Your task to perform on an android device: turn off wifi Image 0: 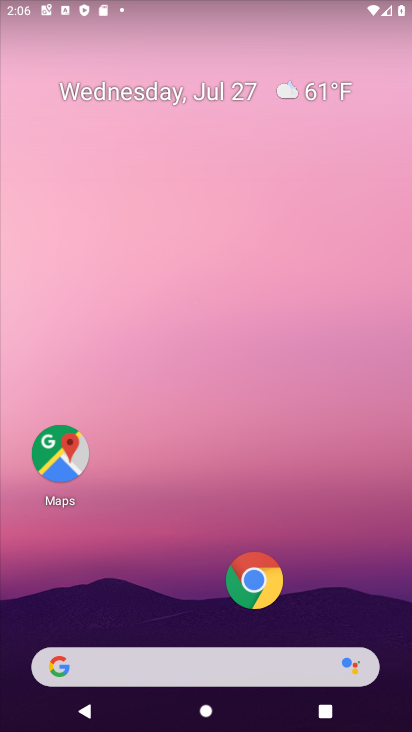
Step 0: drag from (203, 595) to (302, 149)
Your task to perform on an android device: turn off wifi Image 1: 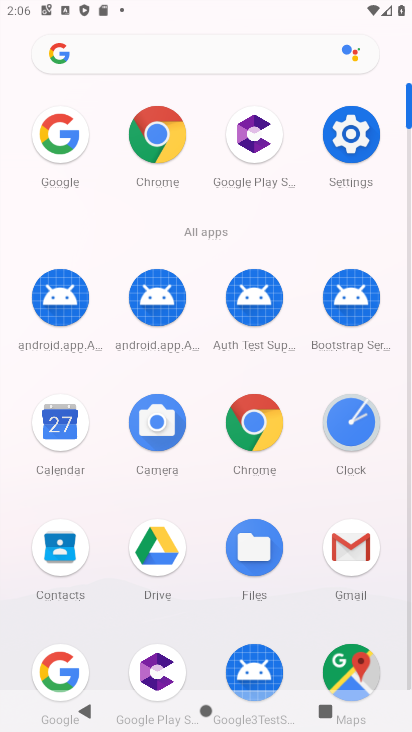
Step 1: click (357, 133)
Your task to perform on an android device: turn off wifi Image 2: 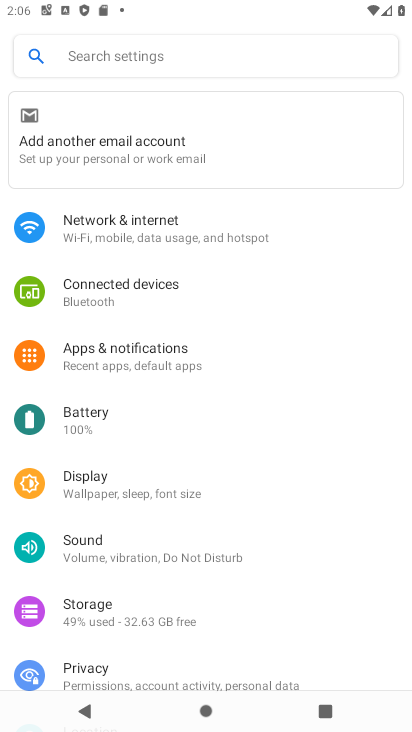
Step 2: click (200, 233)
Your task to perform on an android device: turn off wifi Image 3: 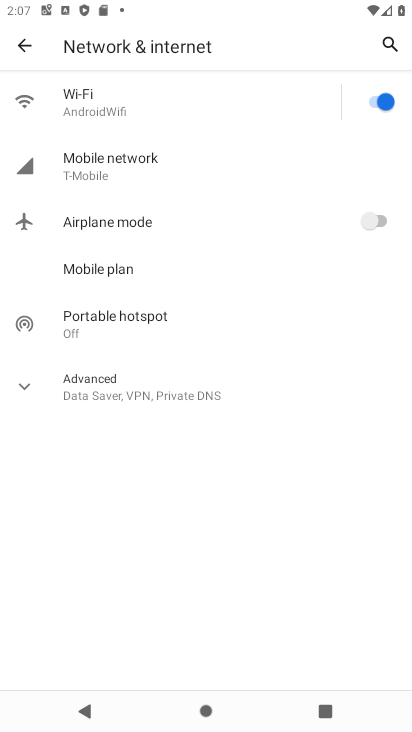
Step 3: click (379, 103)
Your task to perform on an android device: turn off wifi Image 4: 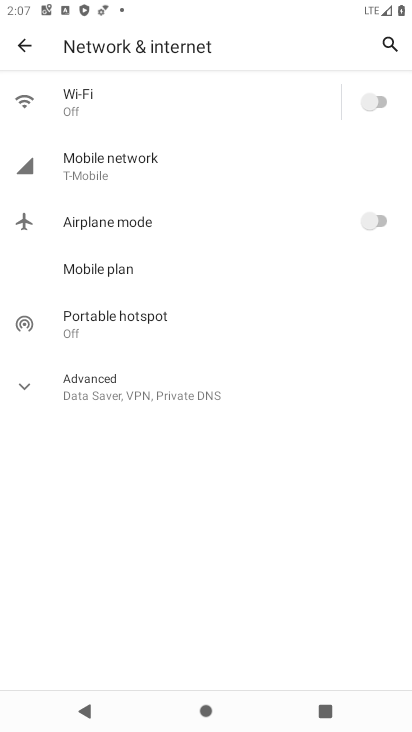
Step 4: task complete